Your task to perform on an android device: remove spam from my inbox in the gmail app Image 0: 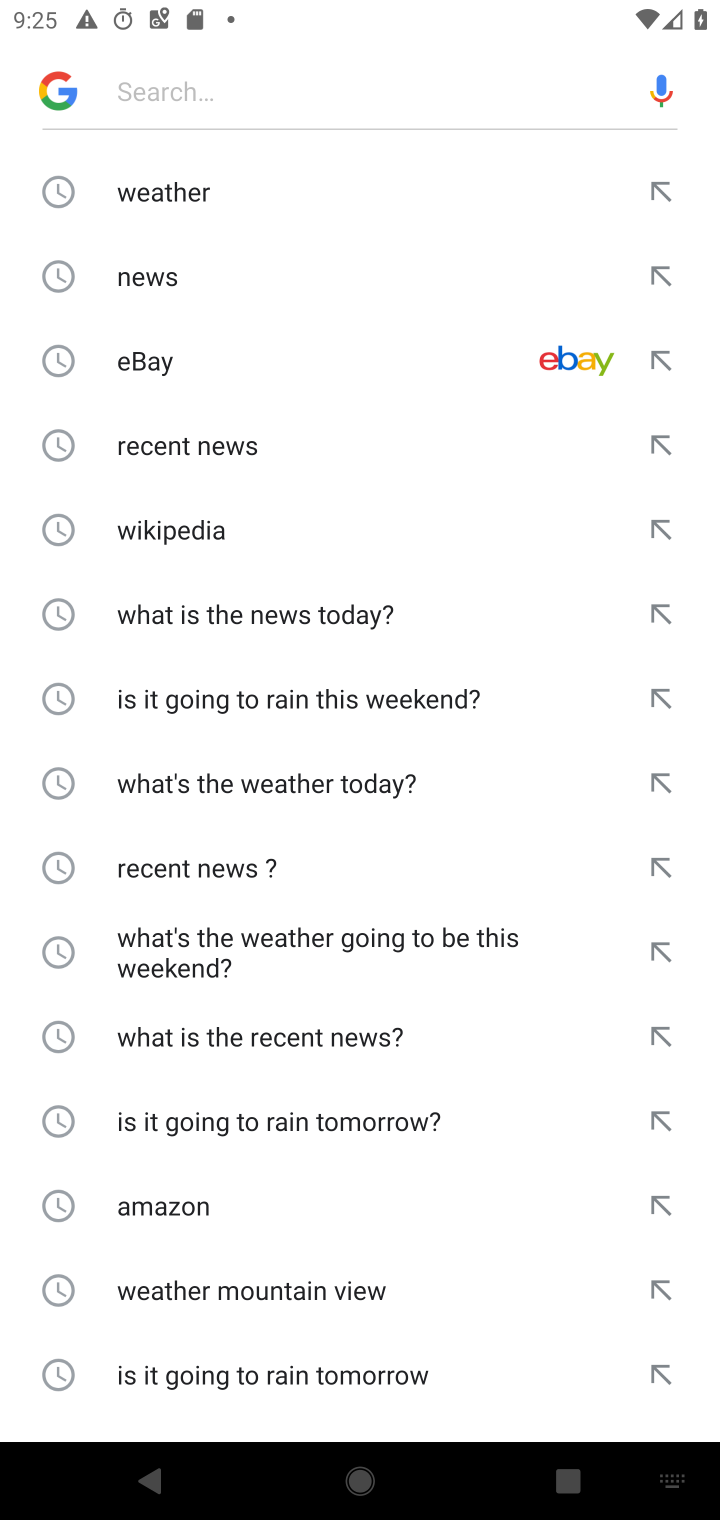
Step 0: press home button
Your task to perform on an android device: remove spam from my inbox in the gmail app Image 1: 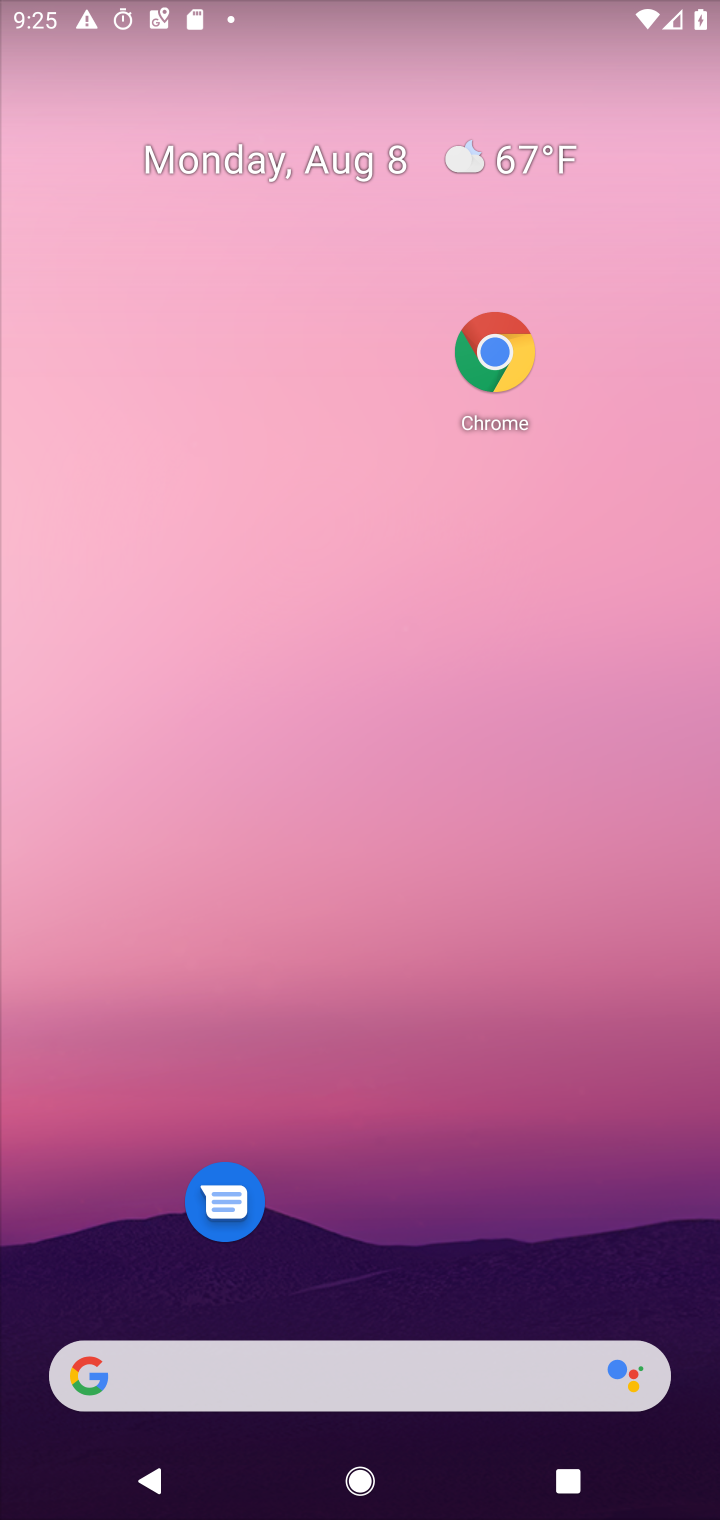
Step 1: drag from (439, 1160) to (451, 208)
Your task to perform on an android device: remove spam from my inbox in the gmail app Image 2: 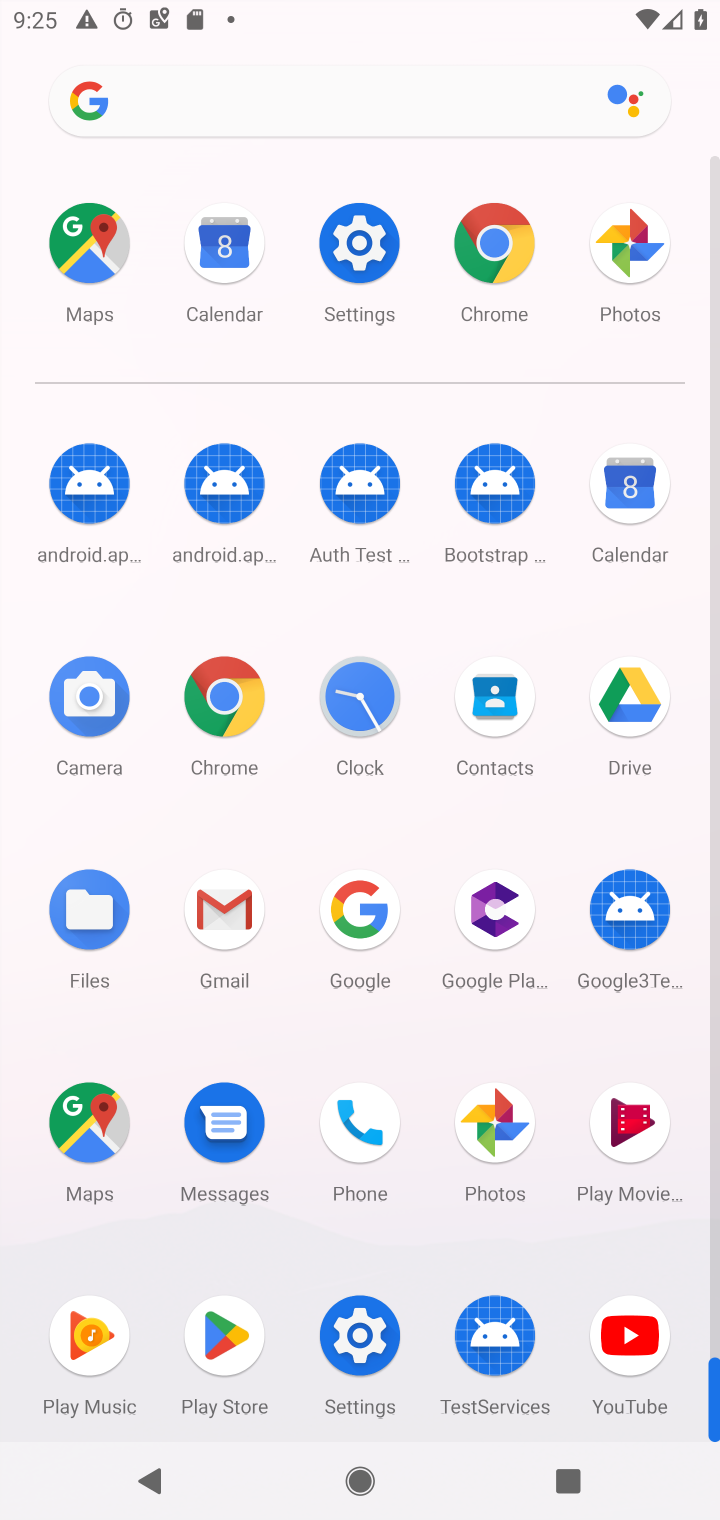
Step 2: click (219, 939)
Your task to perform on an android device: remove spam from my inbox in the gmail app Image 3: 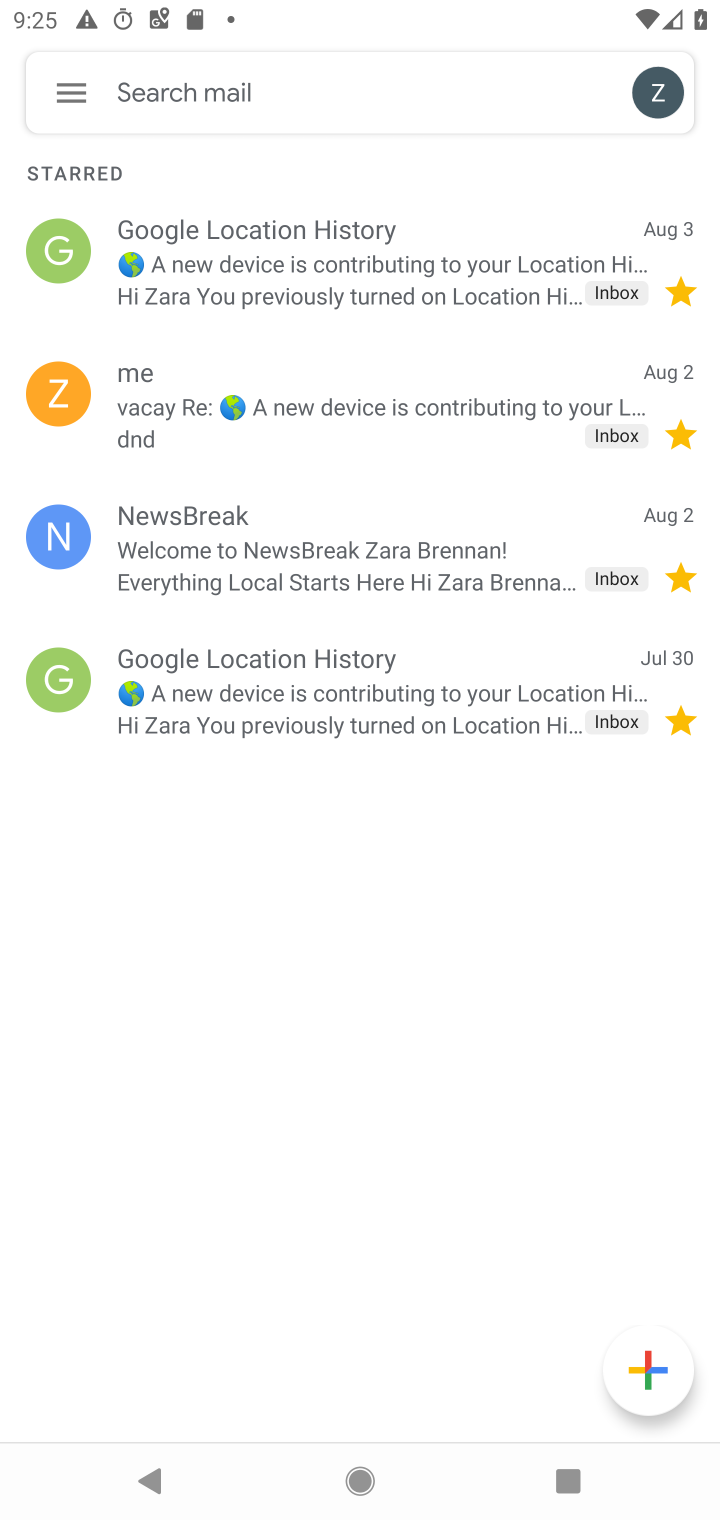
Step 3: click (75, 85)
Your task to perform on an android device: remove spam from my inbox in the gmail app Image 4: 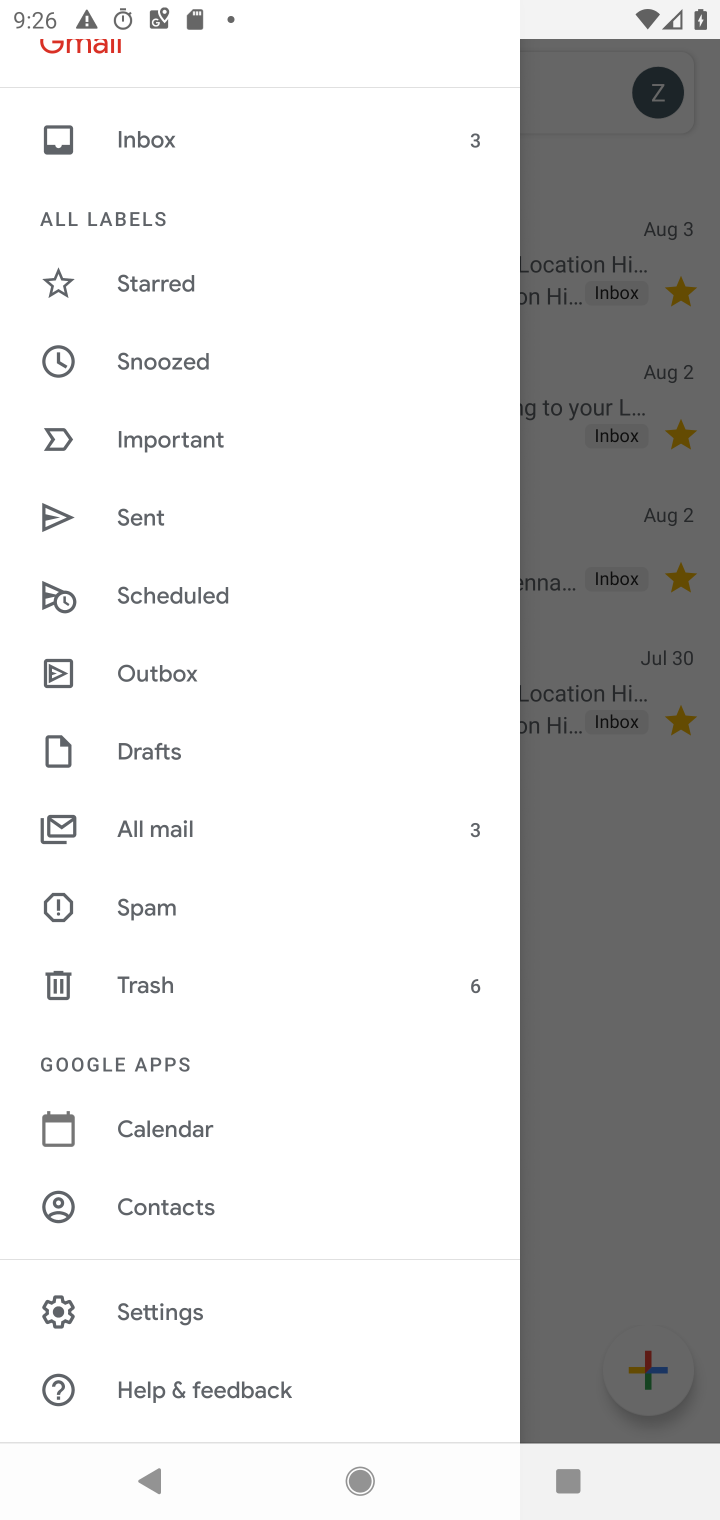
Step 4: click (156, 912)
Your task to perform on an android device: remove spam from my inbox in the gmail app Image 5: 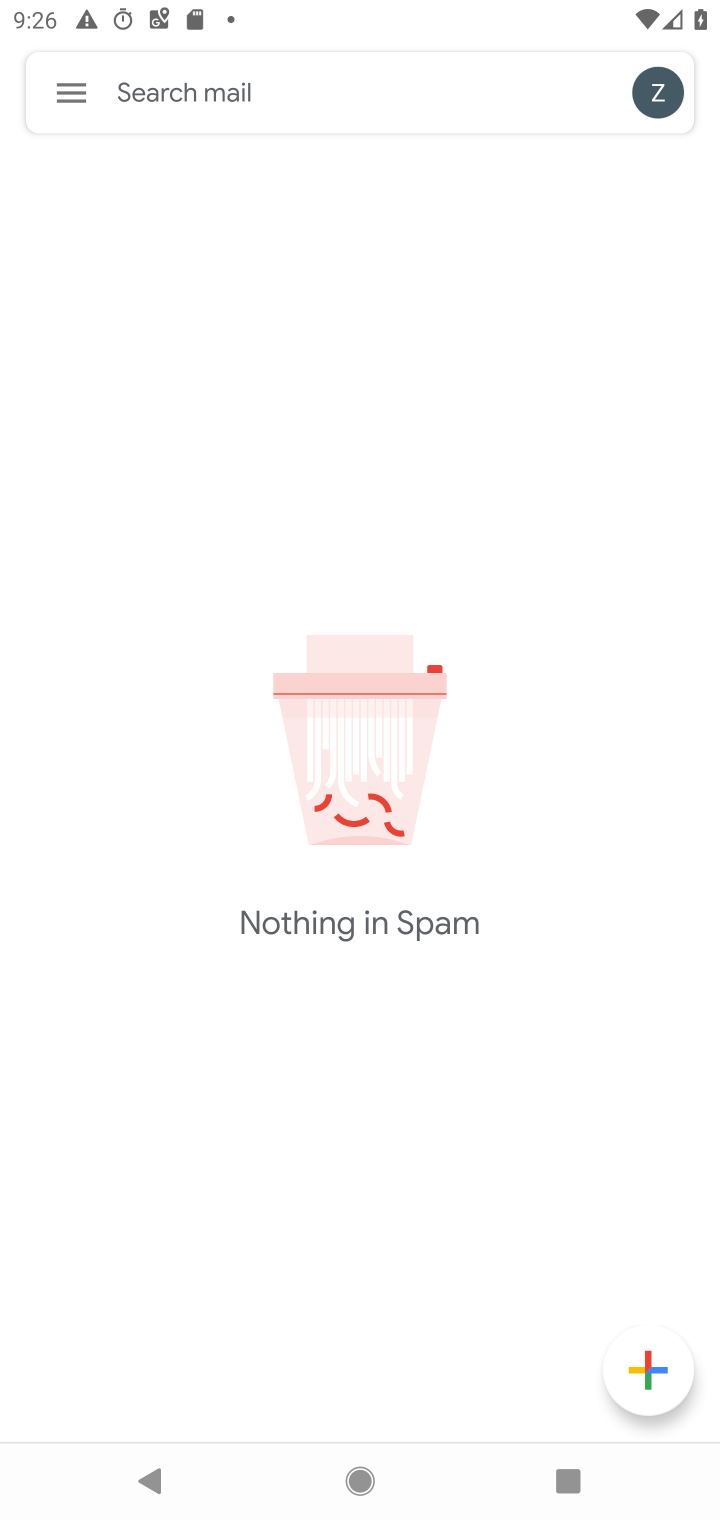
Step 5: task complete